Your task to perform on an android device: Open settings Image 0: 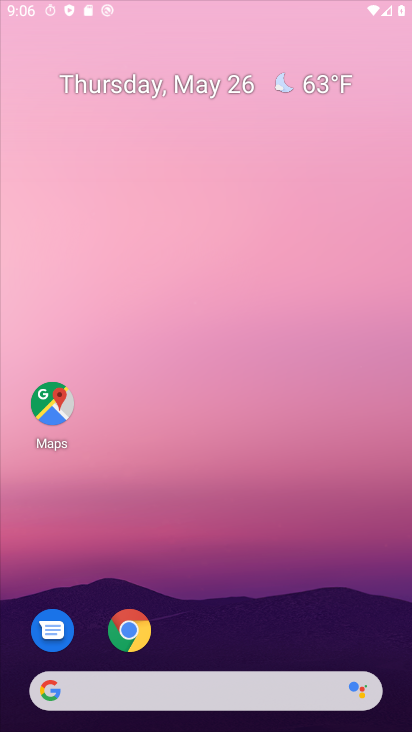
Step 0: drag from (337, 675) to (258, 137)
Your task to perform on an android device: Open settings Image 1: 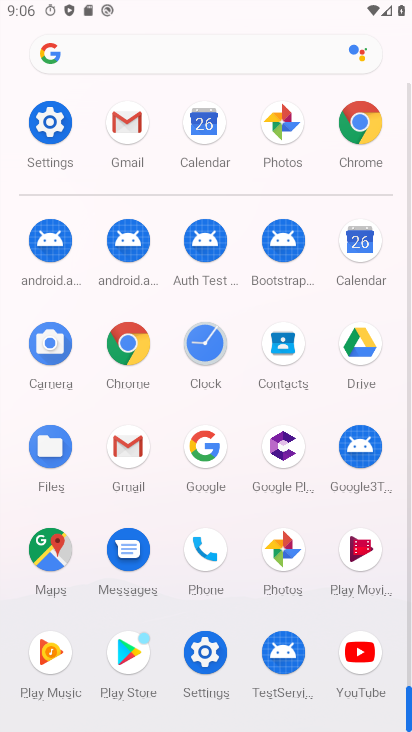
Step 1: click (51, 127)
Your task to perform on an android device: Open settings Image 2: 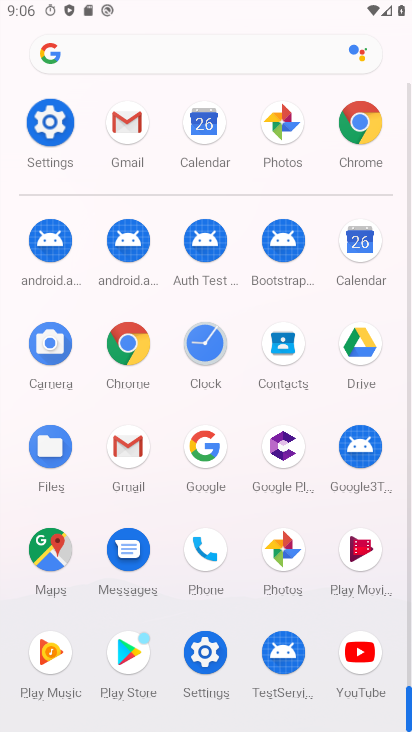
Step 2: click (51, 127)
Your task to perform on an android device: Open settings Image 3: 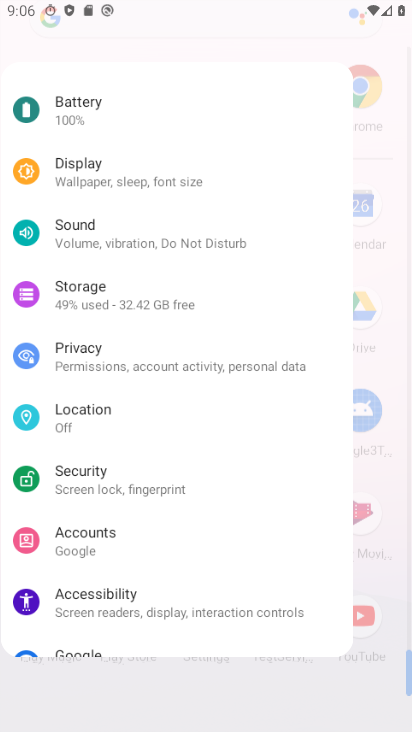
Step 3: click (51, 127)
Your task to perform on an android device: Open settings Image 4: 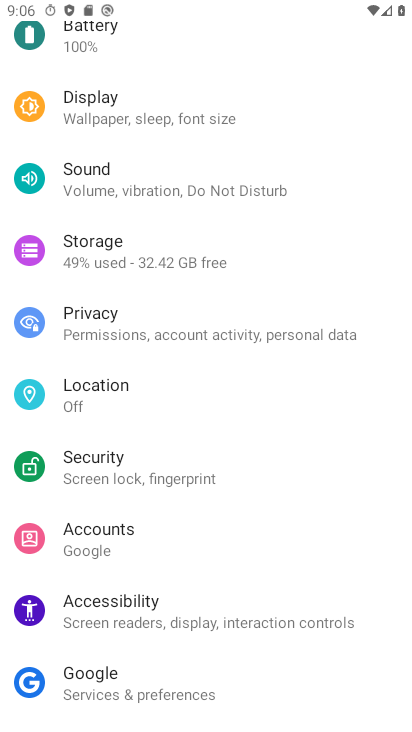
Step 4: click (50, 126)
Your task to perform on an android device: Open settings Image 5: 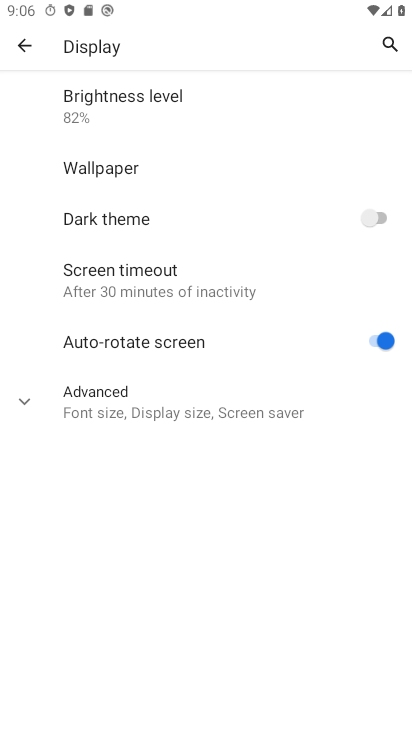
Step 5: task complete